Your task to perform on an android device: turn on bluetooth scan Image 0: 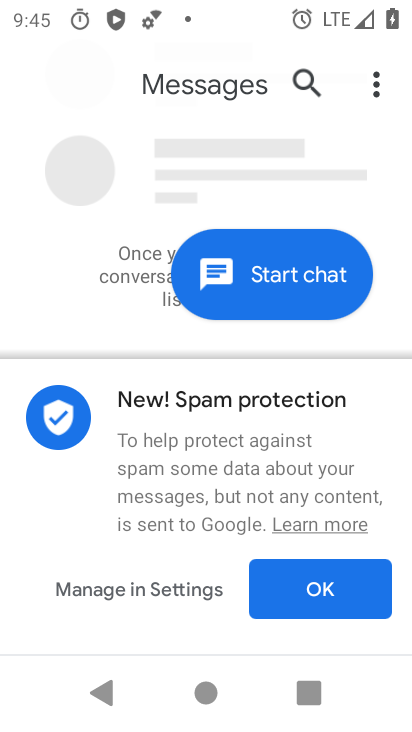
Step 0: drag from (203, 498) to (219, 146)
Your task to perform on an android device: turn on bluetooth scan Image 1: 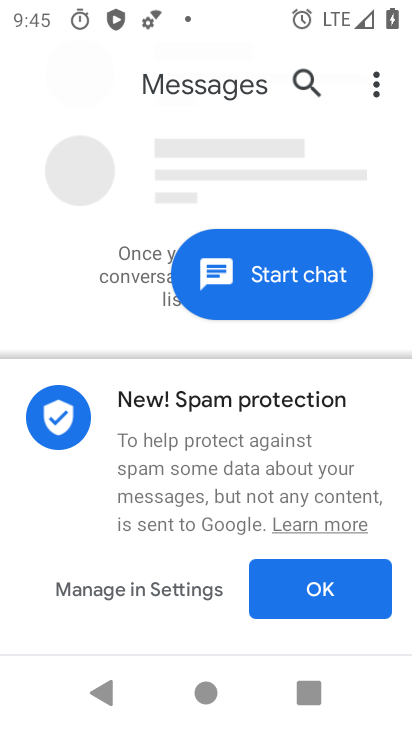
Step 1: drag from (191, 512) to (247, 60)
Your task to perform on an android device: turn on bluetooth scan Image 2: 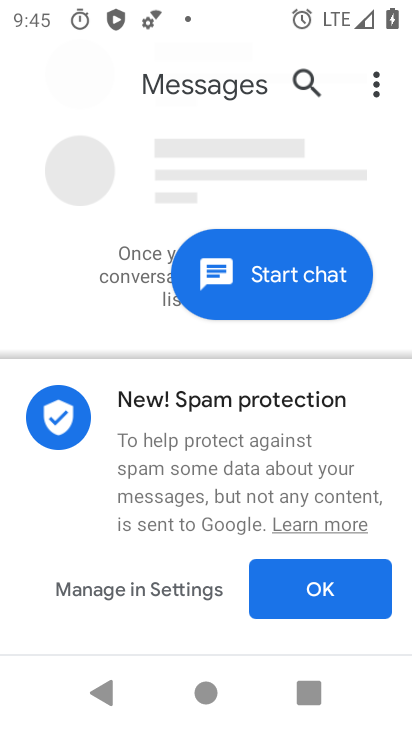
Step 2: drag from (201, 566) to (262, 116)
Your task to perform on an android device: turn on bluetooth scan Image 3: 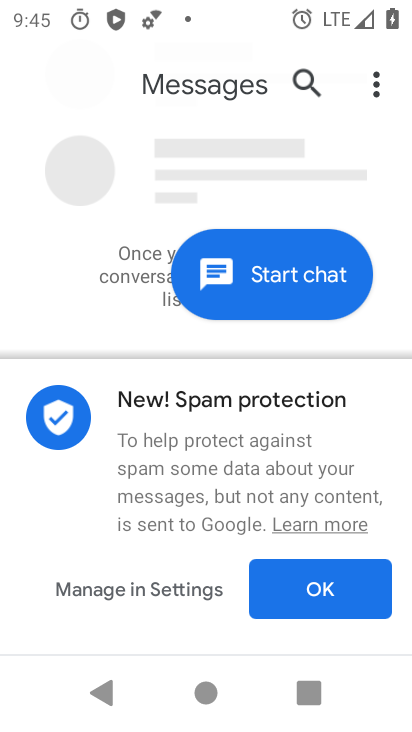
Step 3: drag from (204, 522) to (222, 70)
Your task to perform on an android device: turn on bluetooth scan Image 4: 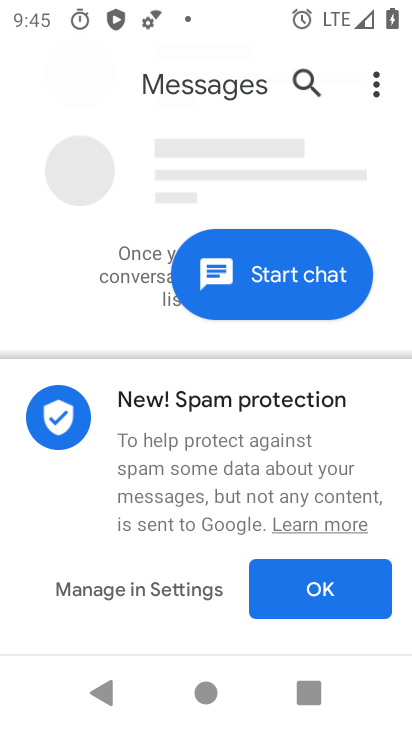
Step 4: drag from (232, 518) to (232, 159)
Your task to perform on an android device: turn on bluetooth scan Image 5: 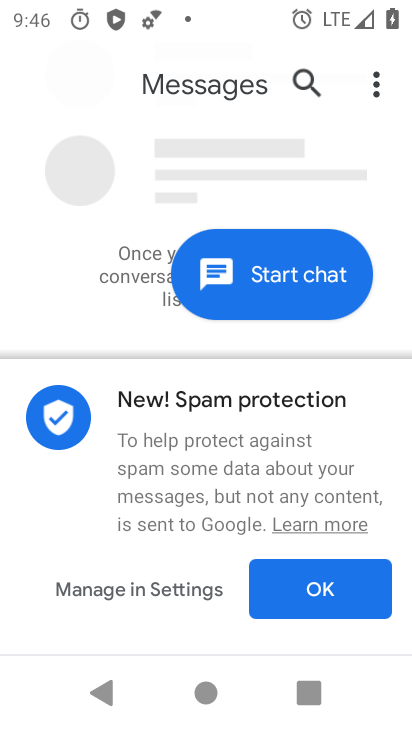
Step 5: drag from (245, 544) to (269, 86)
Your task to perform on an android device: turn on bluetooth scan Image 6: 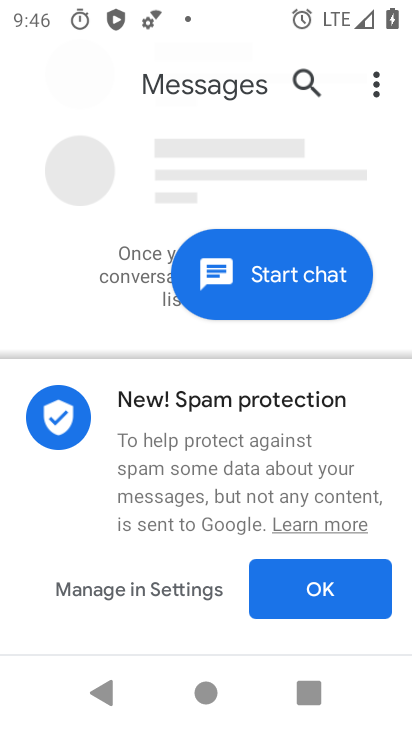
Step 6: drag from (257, 493) to (253, 211)
Your task to perform on an android device: turn on bluetooth scan Image 7: 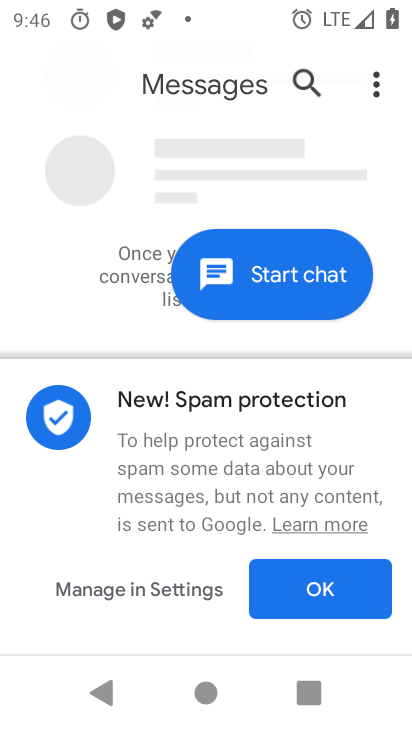
Step 7: drag from (269, 487) to (341, 225)
Your task to perform on an android device: turn on bluetooth scan Image 8: 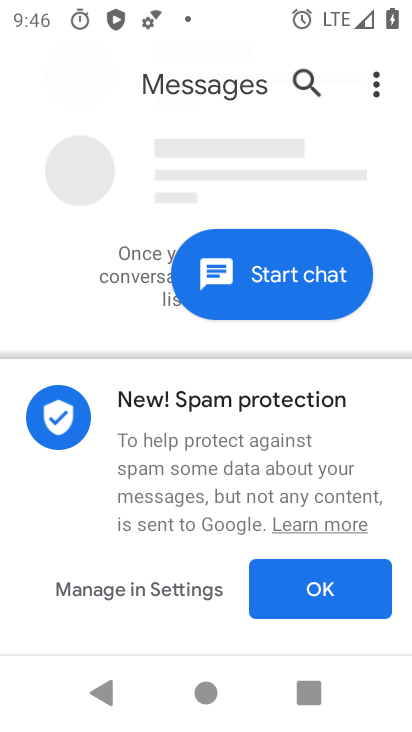
Step 8: drag from (184, 479) to (203, 330)
Your task to perform on an android device: turn on bluetooth scan Image 9: 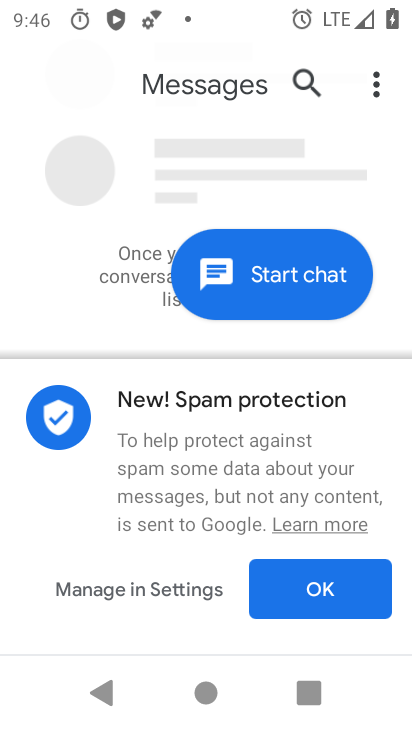
Step 9: drag from (213, 490) to (223, 427)
Your task to perform on an android device: turn on bluetooth scan Image 10: 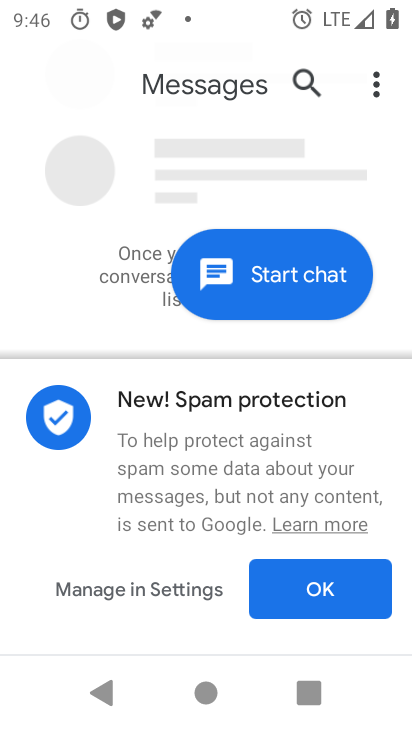
Step 10: drag from (119, 506) to (169, 203)
Your task to perform on an android device: turn on bluetooth scan Image 11: 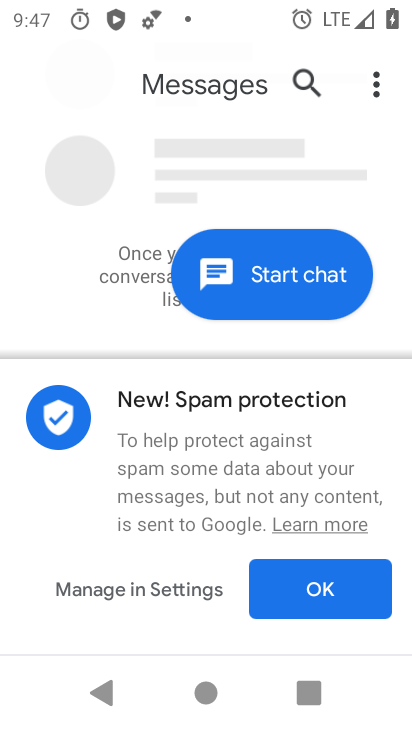
Step 11: press home button
Your task to perform on an android device: turn on bluetooth scan Image 12: 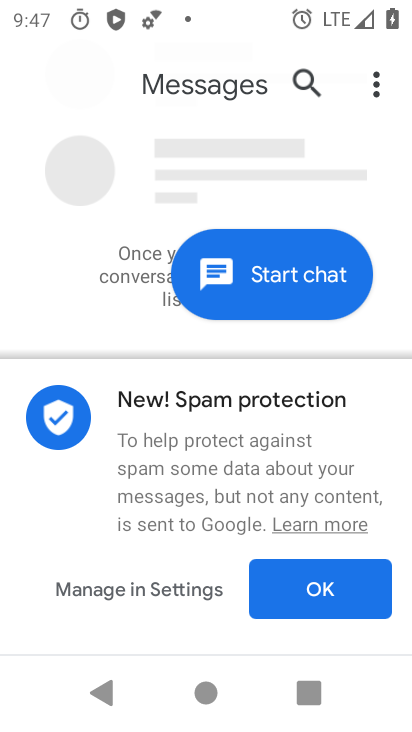
Step 12: press home button
Your task to perform on an android device: turn on bluetooth scan Image 13: 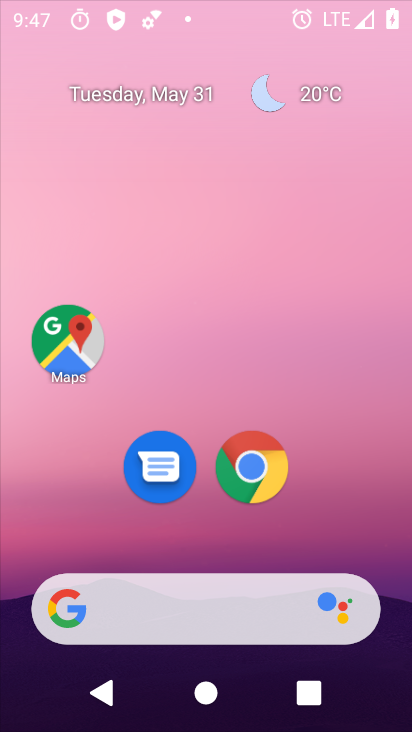
Step 13: drag from (209, 503) to (286, 124)
Your task to perform on an android device: turn on bluetooth scan Image 14: 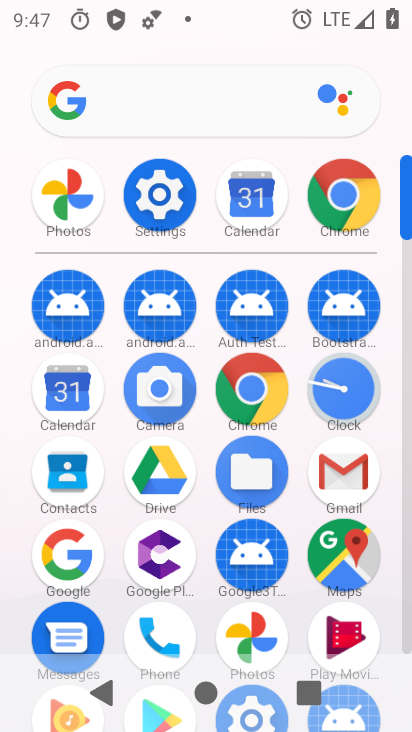
Step 14: click (148, 186)
Your task to perform on an android device: turn on bluetooth scan Image 15: 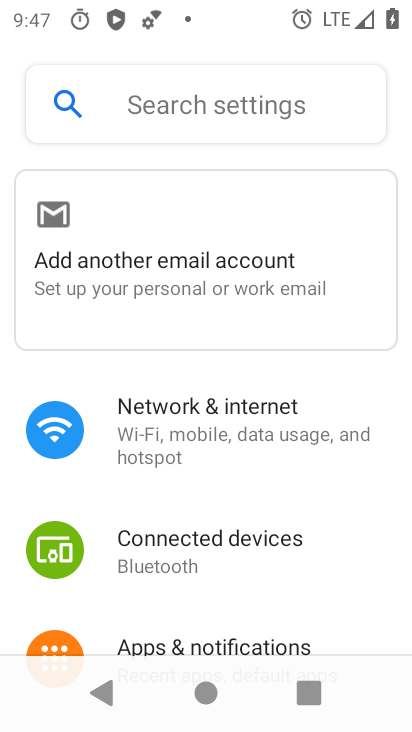
Step 15: drag from (210, 566) to (239, 112)
Your task to perform on an android device: turn on bluetooth scan Image 16: 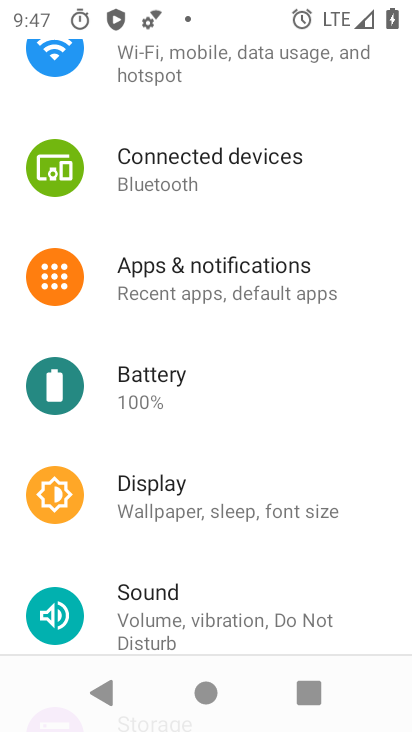
Step 16: drag from (261, 488) to (241, 230)
Your task to perform on an android device: turn on bluetooth scan Image 17: 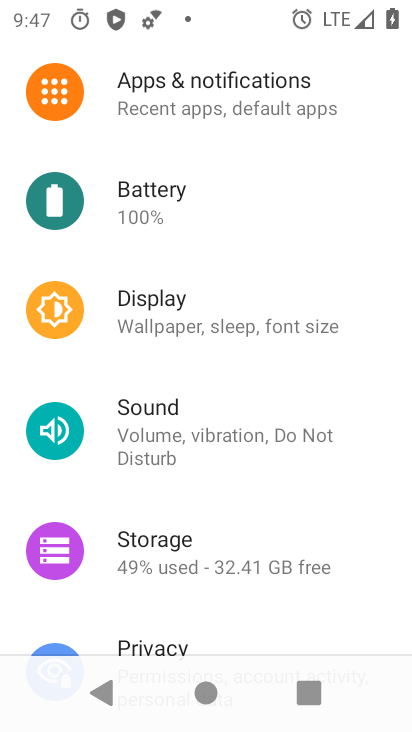
Step 17: drag from (159, 527) to (262, 230)
Your task to perform on an android device: turn on bluetooth scan Image 18: 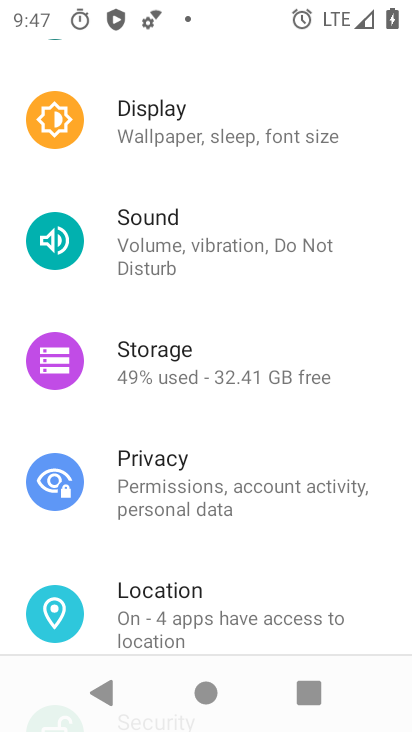
Step 18: click (167, 618)
Your task to perform on an android device: turn on bluetooth scan Image 19: 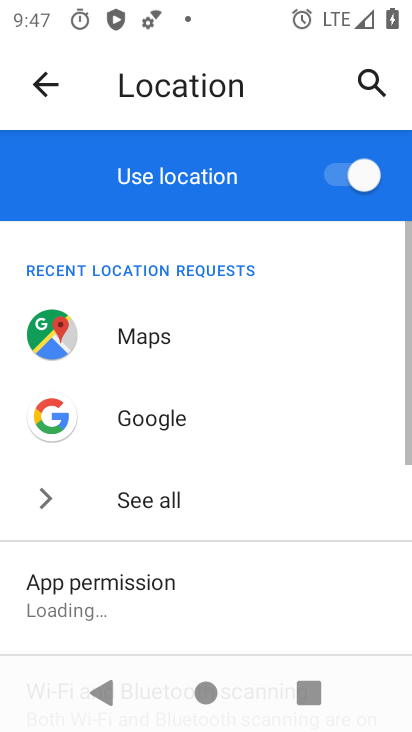
Step 19: drag from (201, 525) to (214, 211)
Your task to perform on an android device: turn on bluetooth scan Image 20: 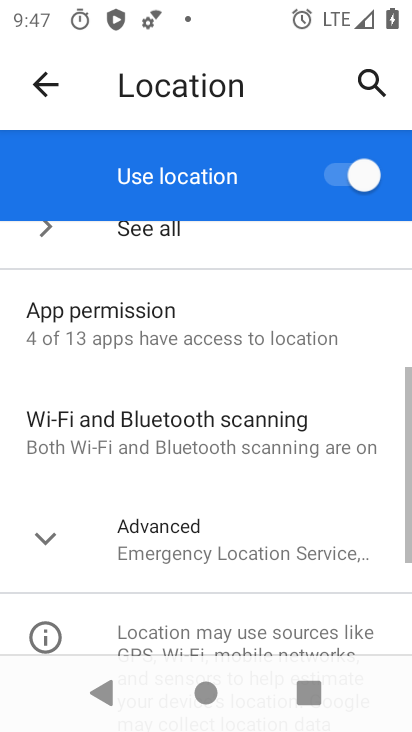
Step 20: drag from (261, 599) to (269, 385)
Your task to perform on an android device: turn on bluetooth scan Image 21: 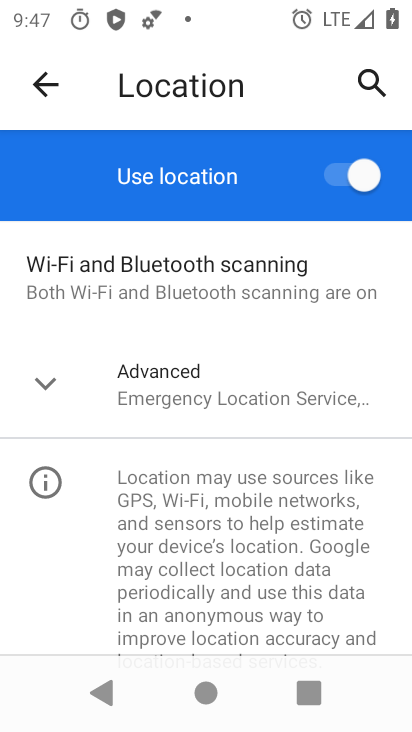
Step 21: click (219, 385)
Your task to perform on an android device: turn on bluetooth scan Image 22: 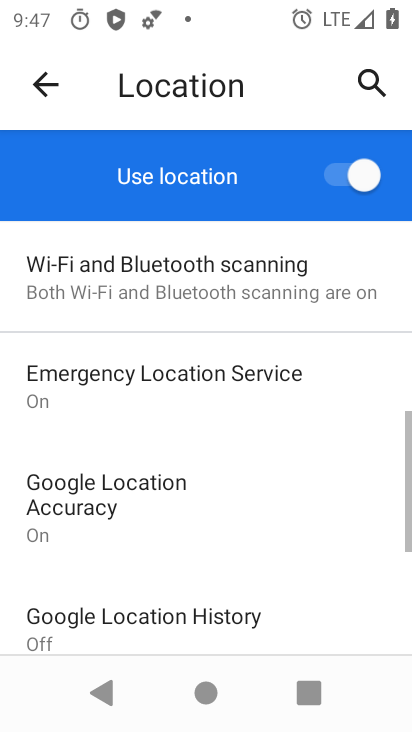
Step 22: drag from (241, 544) to (307, 193)
Your task to perform on an android device: turn on bluetooth scan Image 23: 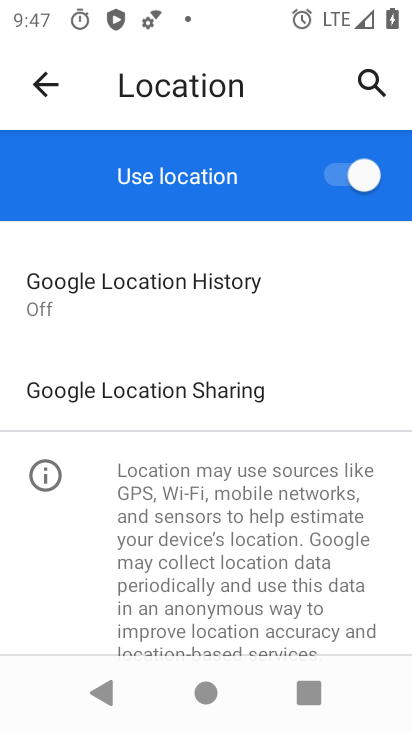
Step 23: drag from (219, 514) to (238, 419)
Your task to perform on an android device: turn on bluetooth scan Image 24: 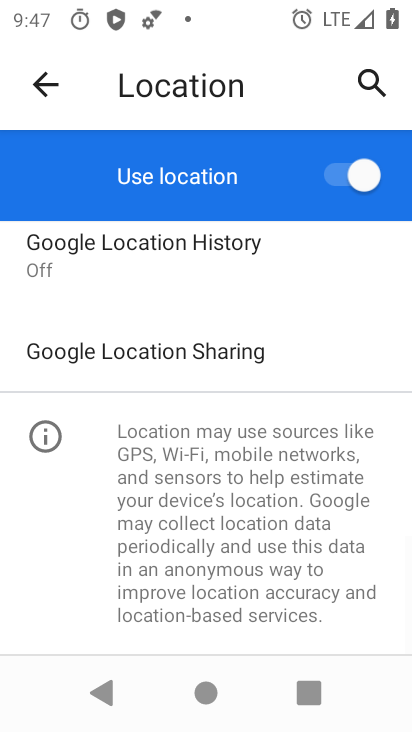
Step 24: drag from (252, 408) to (261, 574)
Your task to perform on an android device: turn on bluetooth scan Image 25: 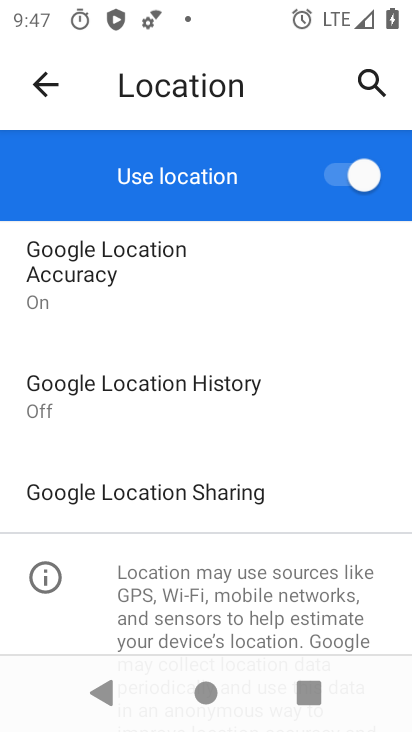
Step 25: drag from (205, 453) to (297, 624)
Your task to perform on an android device: turn on bluetooth scan Image 26: 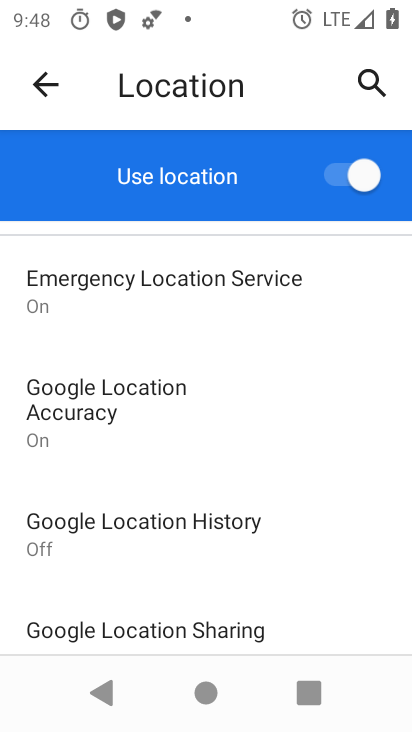
Step 26: drag from (220, 560) to (292, 323)
Your task to perform on an android device: turn on bluetooth scan Image 27: 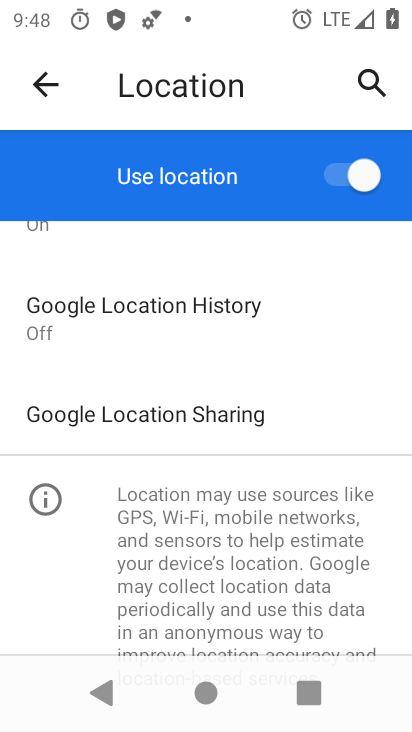
Step 27: drag from (222, 405) to (317, 580)
Your task to perform on an android device: turn on bluetooth scan Image 28: 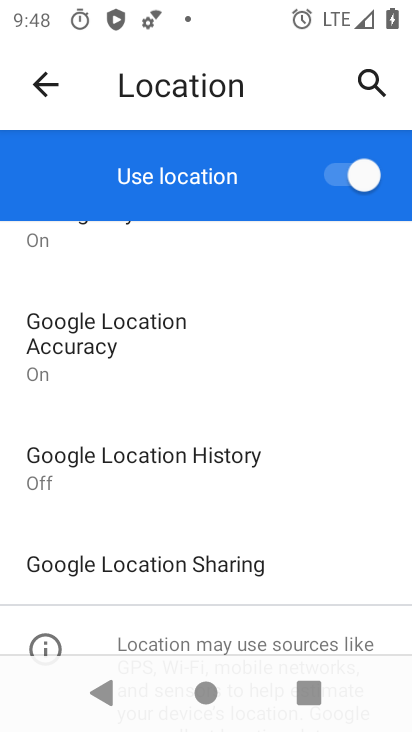
Step 28: drag from (147, 392) to (244, 542)
Your task to perform on an android device: turn on bluetooth scan Image 29: 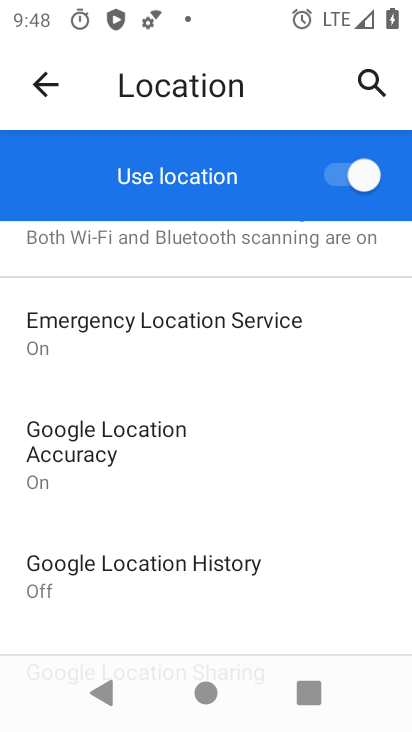
Step 29: drag from (140, 384) to (333, 658)
Your task to perform on an android device: turn on bluetooth scan Image 30: 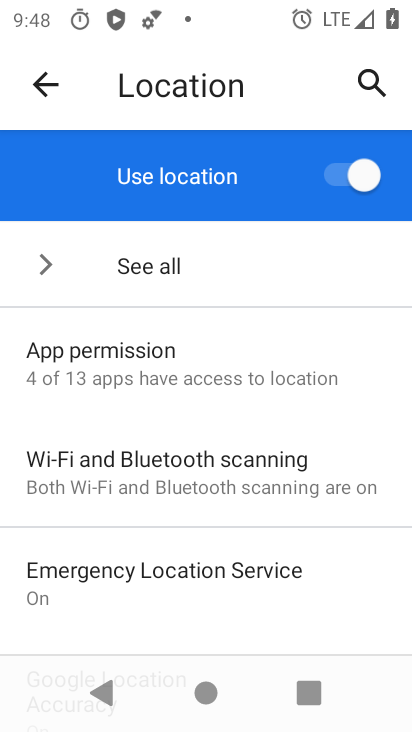
Step 30: click (148, 437)
Your task to perform on an android device: turn on bluetooth scan Image 31: 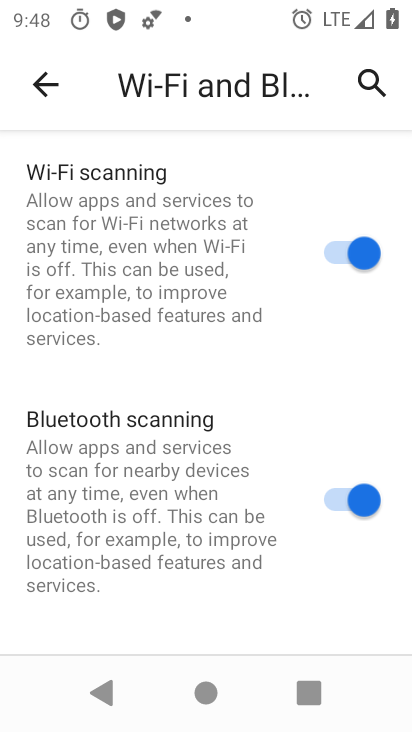
Step 31: task complete